Your task to perform on an android device: Do I have any events today? Image 0: 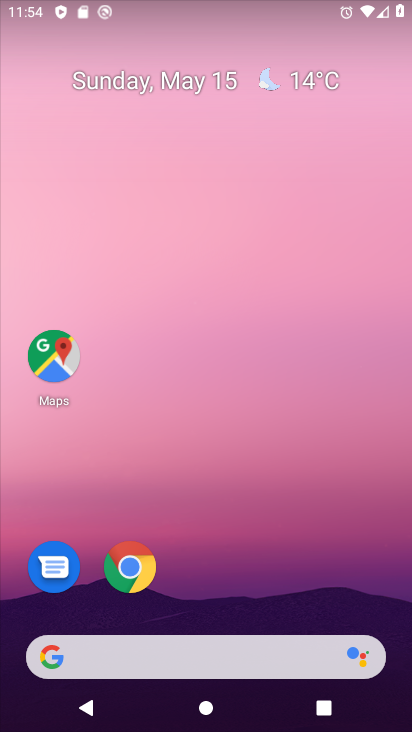
Step 0: drag from (272, 611) to (272, 25)
Your task to perform on an android device: Do I have any events today? Image 1: 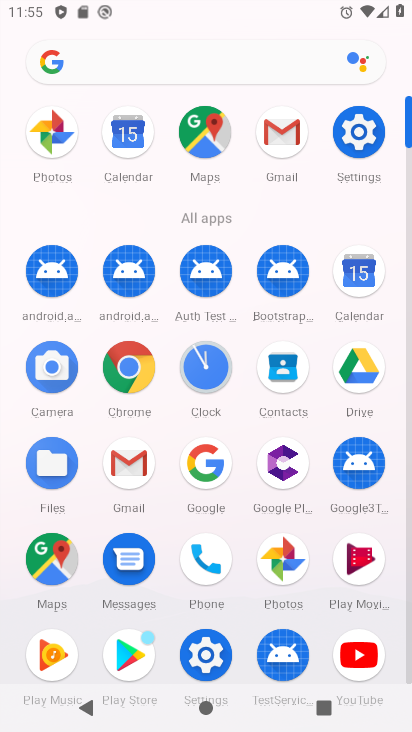
Step 1: click (356, 279)
Your task to perform on an android device: Do I have any events today? Image 2: 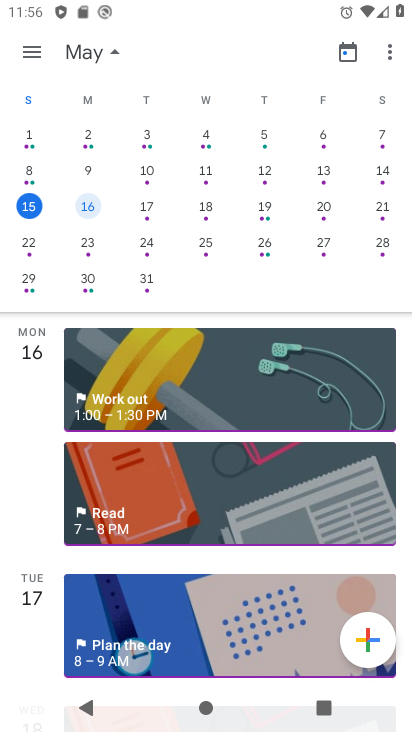
Step 2: click (28, 207)
Your task to perform on an android device: Do I have any events today? Image 3: 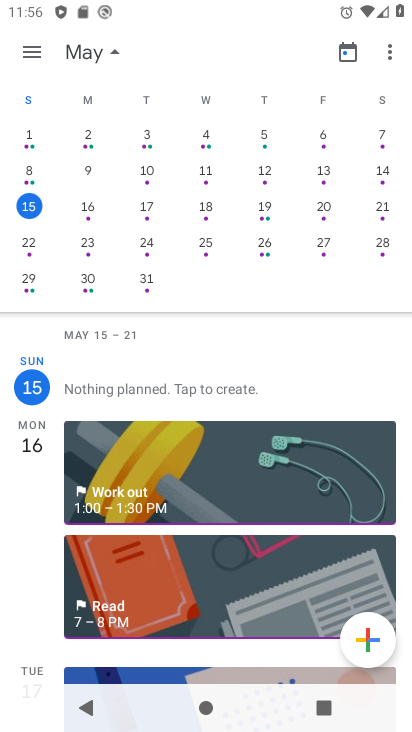
Step 3: task complete